Your task to perform on an android device: Search for hotels in London Image 0: 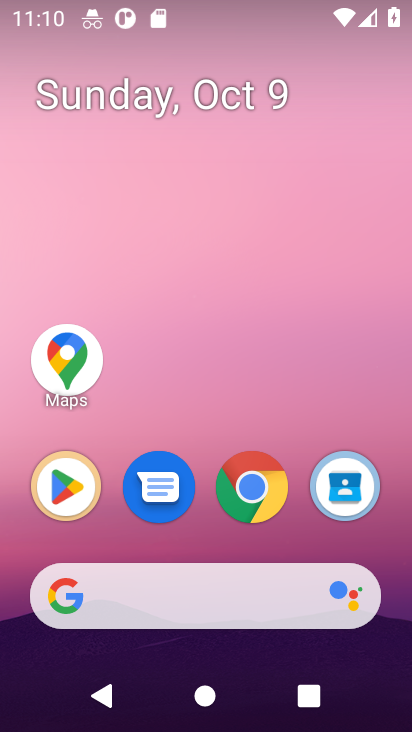
Step 0: click (264, 506)
Your task to perform on an android device: Search for hotels in London Image 1: 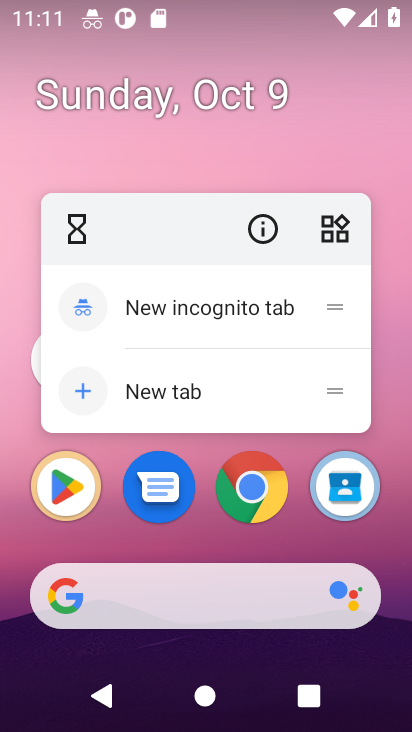
Step 1: click (245, 512)
Your task to perform on an android device: Search for hotels in London Image 2: 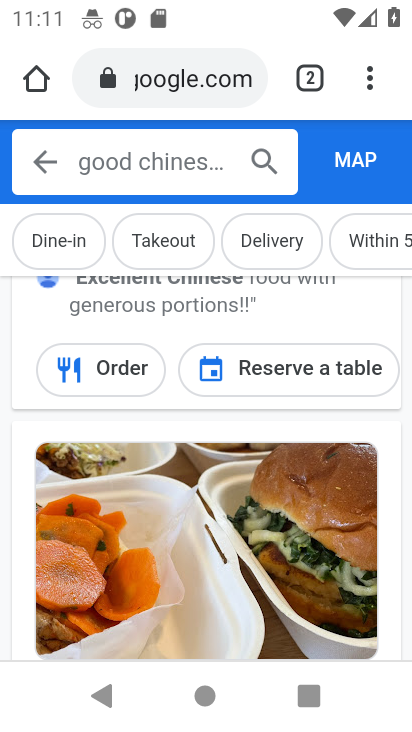
Step 2: click (195, 75)
Your task to perform on an android device: Search for hotels in London Image 3: 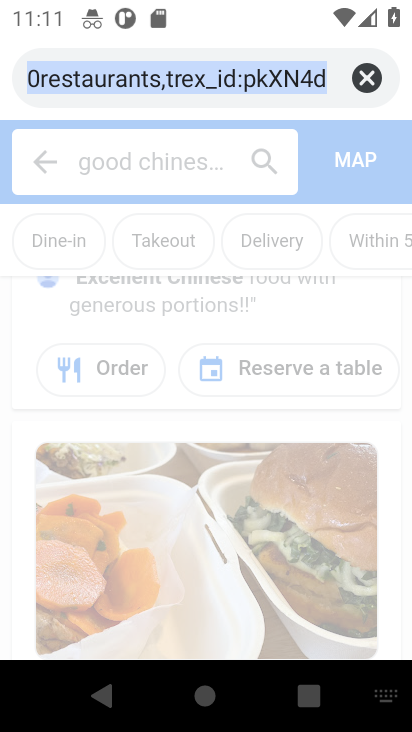
Step 3: type "hotels in london"
Your task to perform on an android device: Search for hotels in London Image 4: 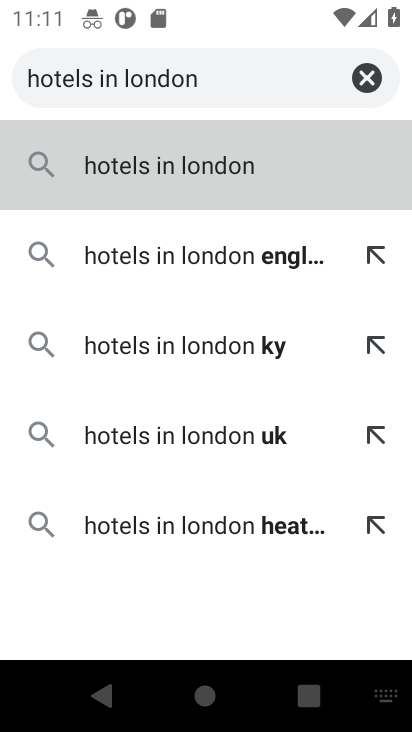
Step 4: press enter
Your task to perform on an android device: Search for hotels in London Image 5: 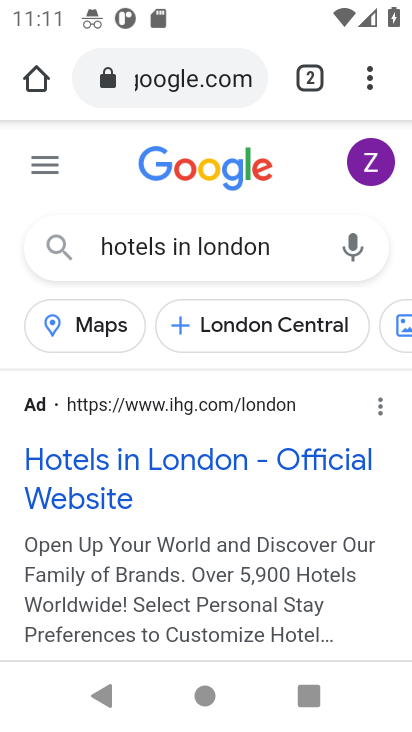
Step 5: drag from (340, 547) to (343, 288)
Your task to perform on an android device: Search for hotels in London Image 6: 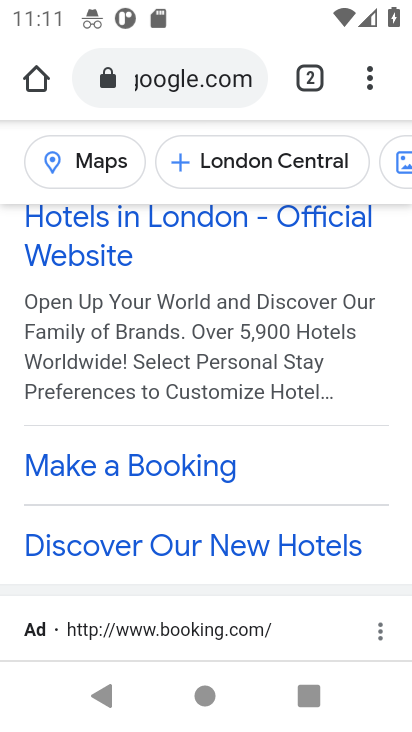
Step 6: drag from (282, 548) to (307, 215)
Your task to perform on an android device: Search for hotels in London Image 7: 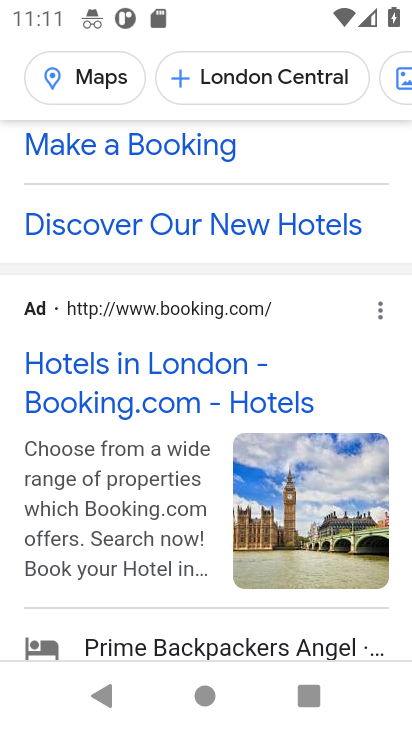
Step 7: click (146, 368)
Your task to perform on an android device: Search for hotels in London Image 8: 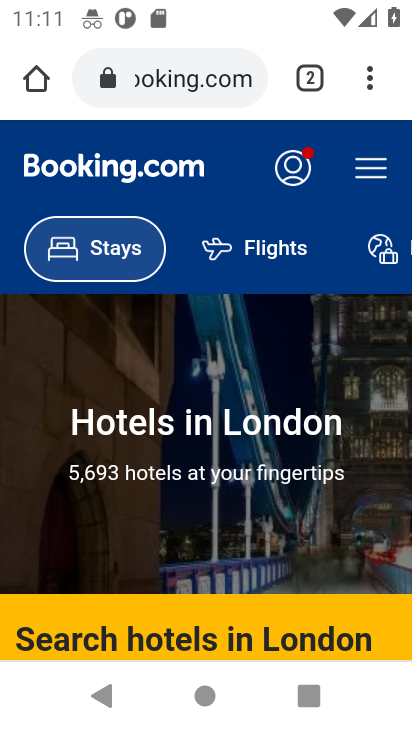
Step 8: task complete